Your task to perform on an android device: turn off wifi Image 0: 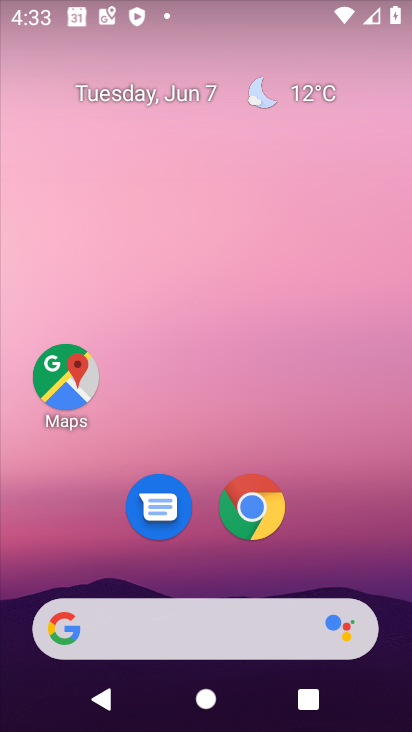
Step 0: drag from (229, 424) to (274, 476)
Your task to perform on an android device: turn off wifi Image 1: 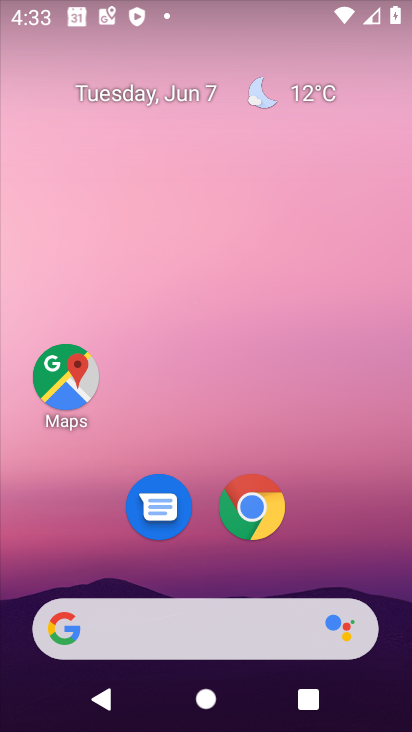
Step 1: drag from (335, 529) to (227, 30)
Your task to perform on an android device: turn off wifi Image 2: 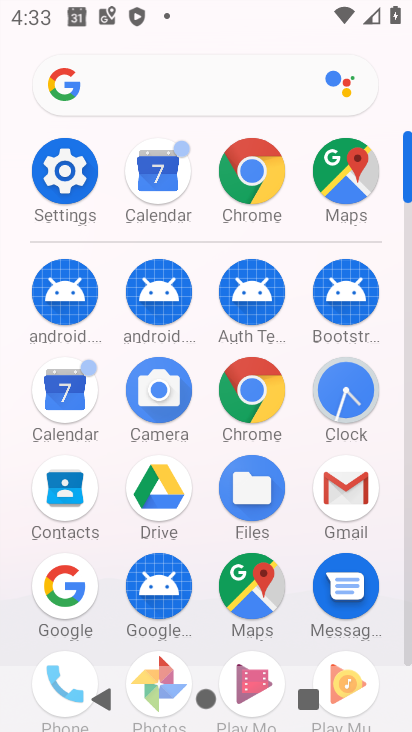
Step 2: drag from (4, 594) to (21, 198)
Your task to perform on an android device: turn off wifi Image 3: 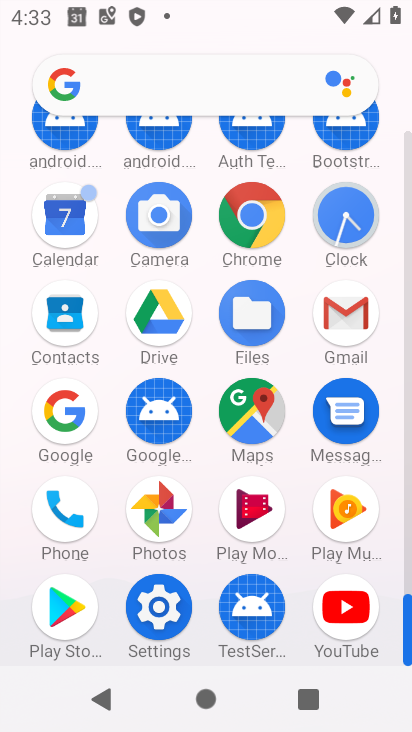
Step 3: click (158, 602)
Your task to perform on an android device: turn off wifi Image 4: 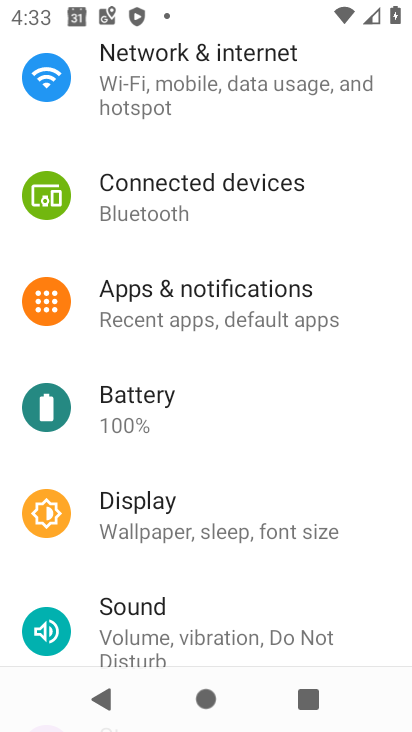
Step 4: drag from (236, 144) to (261, 633)
Your task to perform on an android device: turn off wifi Image 5: 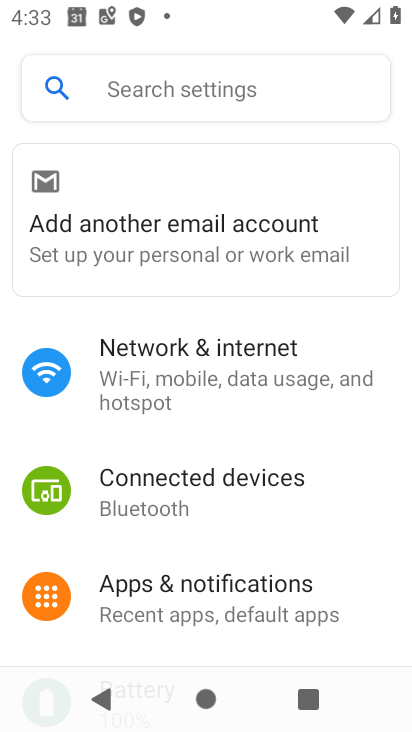
Step 5: click (231, 352)
Your task to perform on an android device: turn off wifi Image 6: 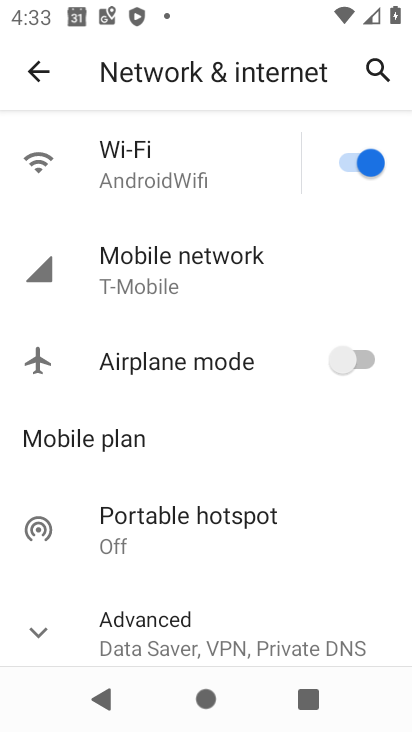
Step 6: click (349, 151)
Your task to perform on an android device: turn off wifi Image 7: 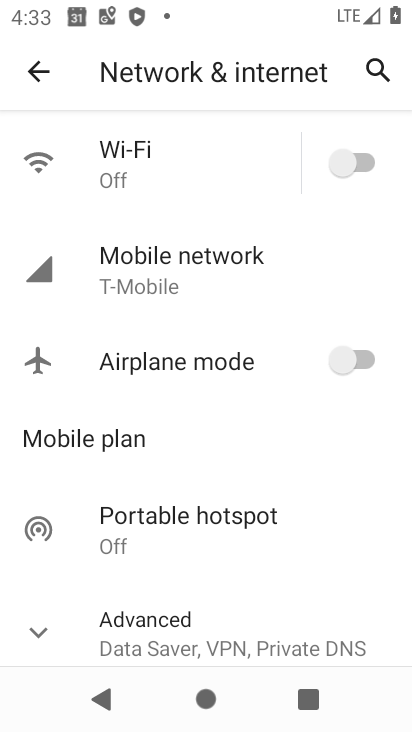
Step 7: click (44, 635)
Your task to perform on an android device: turn off wifi Image 8: 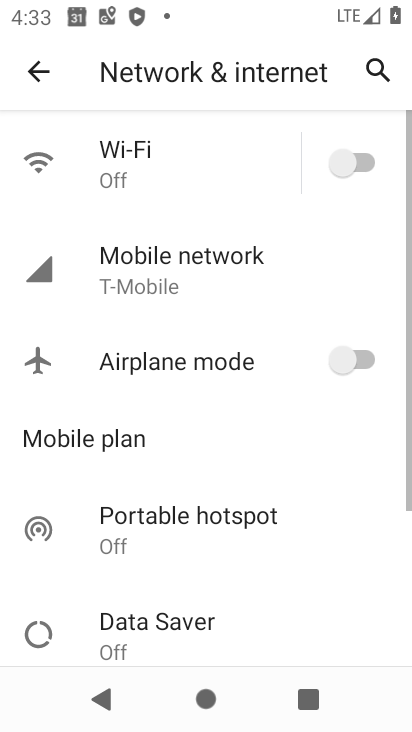
Step 8: task complete